Your task to perform on an android device: open chrome and create a bookmark for the current page Image 0: 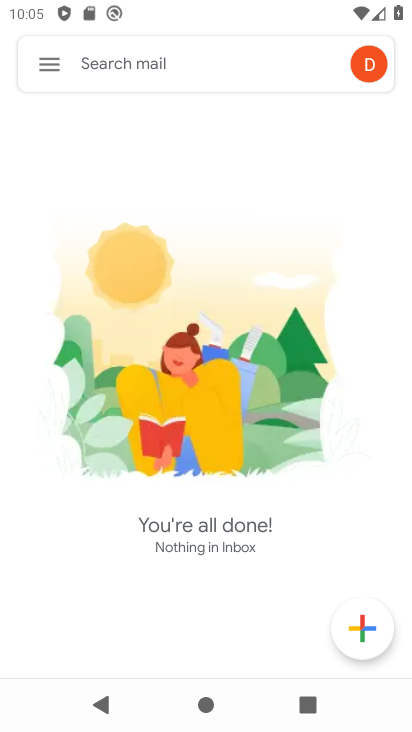
Step 0: press home button
Your task to perform on an android device: open chrome and create a bookmark for the current page Image 1: 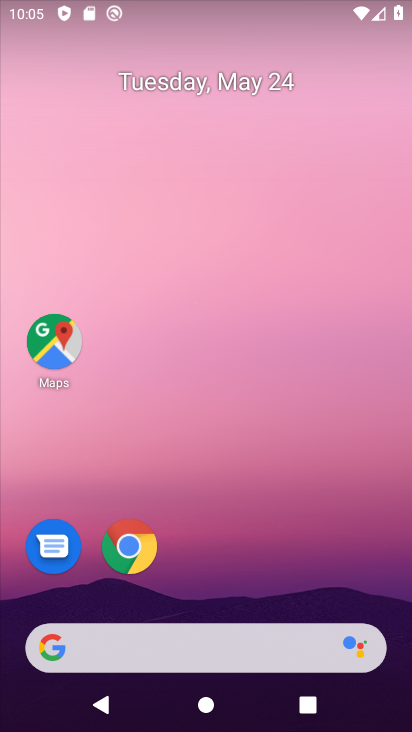
Step 1: click (131, 549)
Your task to perform on an android device: open chrome and create a bookmark for the current page Image 2: 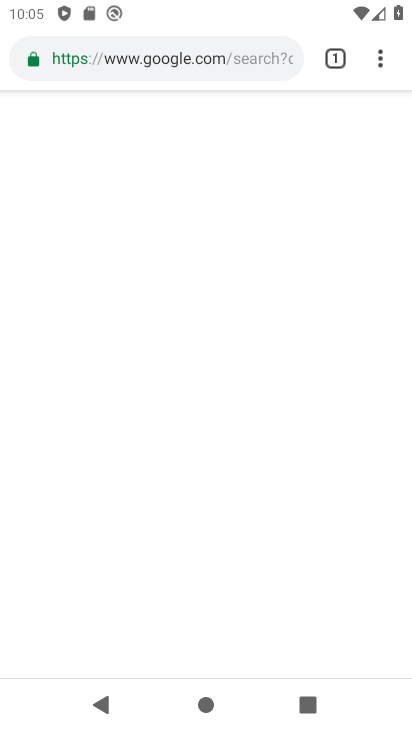
Step 2: task complete